Your task to perform on an android device: turn off data saver in the chrome app Image 0: 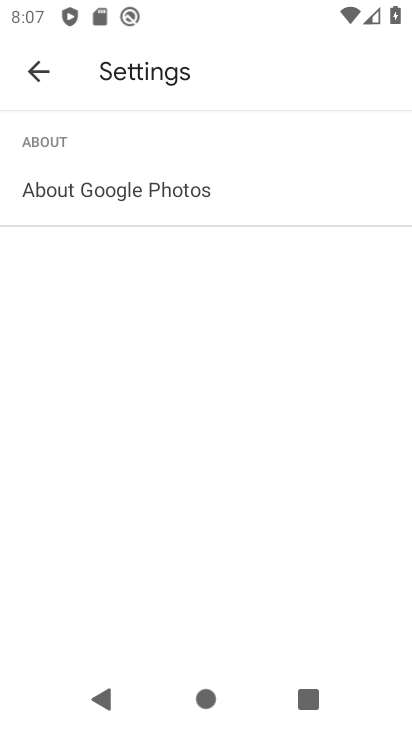
Step 0: press home button
Your task to perform on an android device: turn off data saver in the chrome app Image 1: 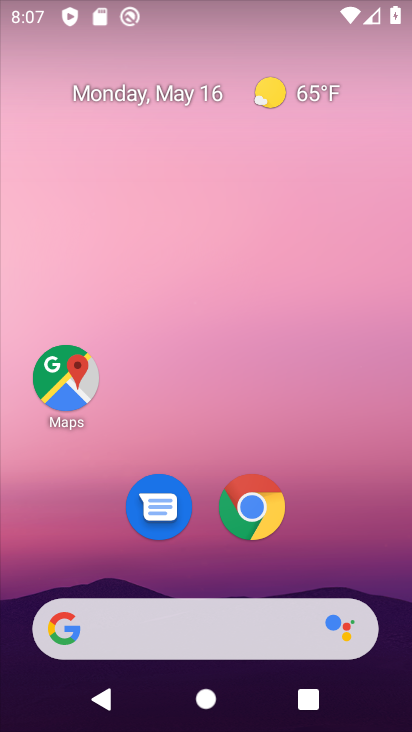
Step 1: click (266, 524)
Your task to perform on an android device: turn off data saver in the chrome app Image 2: 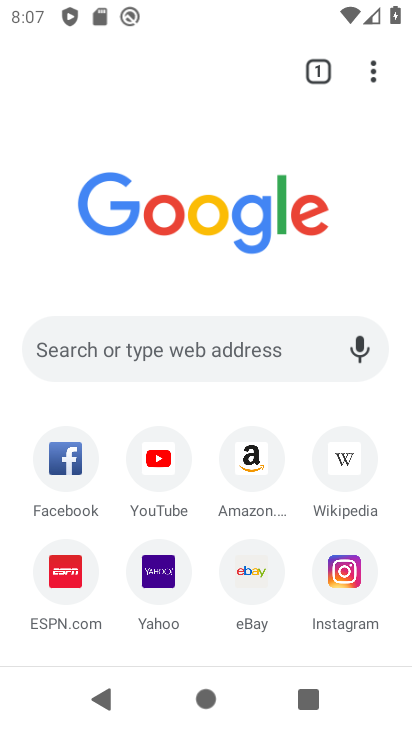
Step 2: click (367, 73)
Your task to perform on an android device: turn off data saver in the chrome app Image 3: 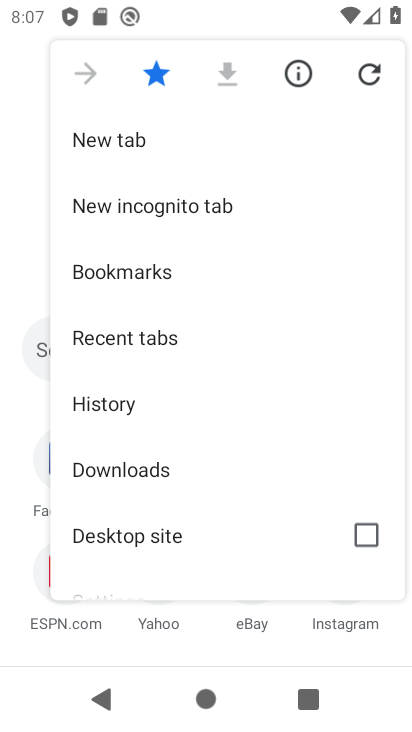
Step 3: drag from (257, 491) to (195, 43)
Your task to perform on an android device: turn off data saver in the chrome app Image 4: 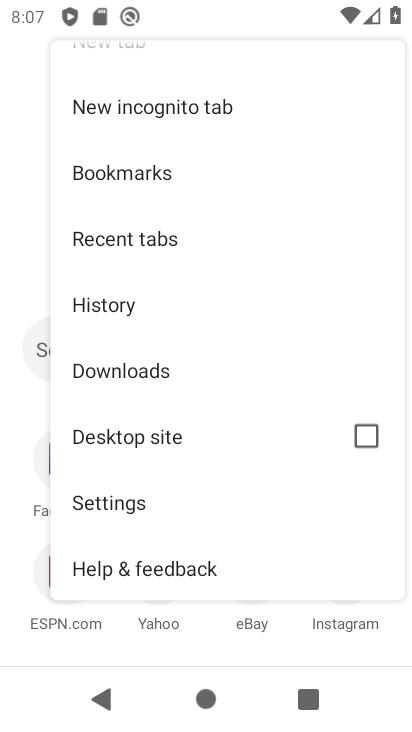
Step 4: click (92, 484)
Your task to perform on an android device: turn off data saver in the chrome app Image 5: 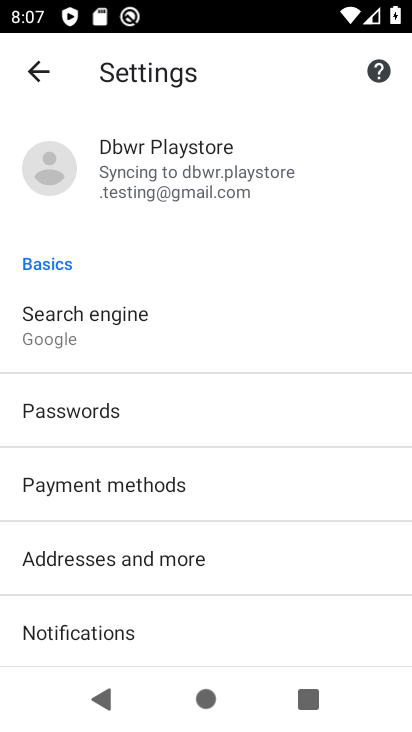
Step 5: drag from (160, 567) to (118, 173)
Your task to perform on an android device: turn off data saver in the chrome app Image 6: 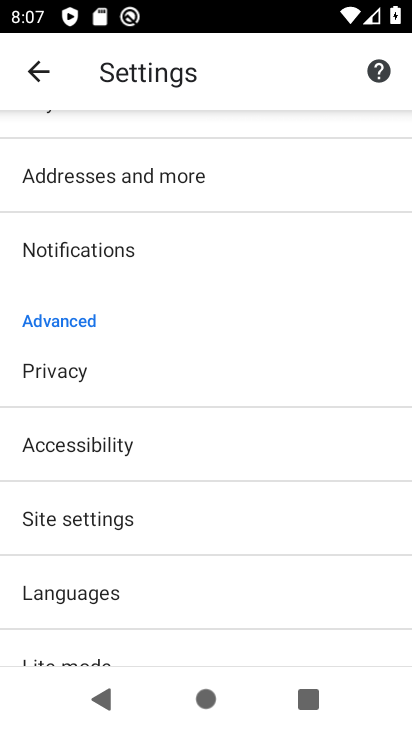
Step 6: drag from (125, 550) to (114, 404)
Your task to perform on an android device: turn off data saver in the chrome app Image 7: 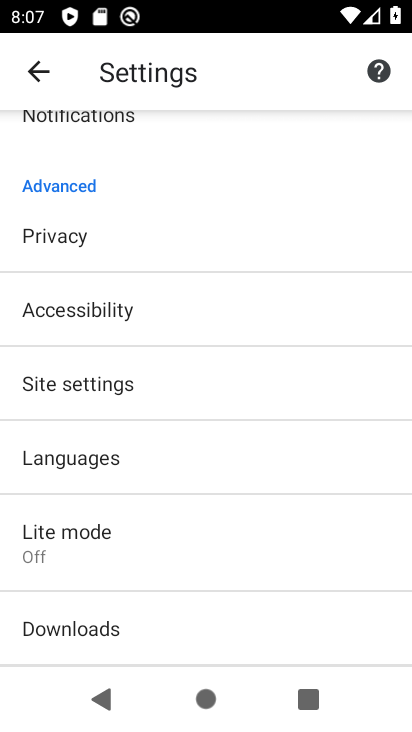
Step 7: click (97, 521)
Your task to perform on an android device: turn off data saver in the chrome app Image 8: 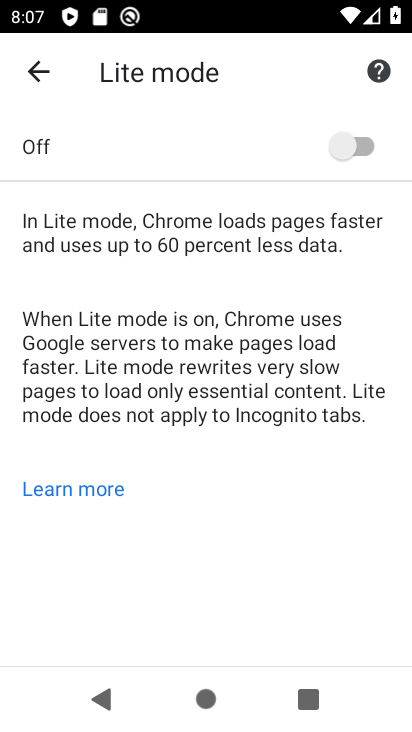
Step 8: task complete